Your task to perform on an android device: turn off improve location accuracy Image 0: 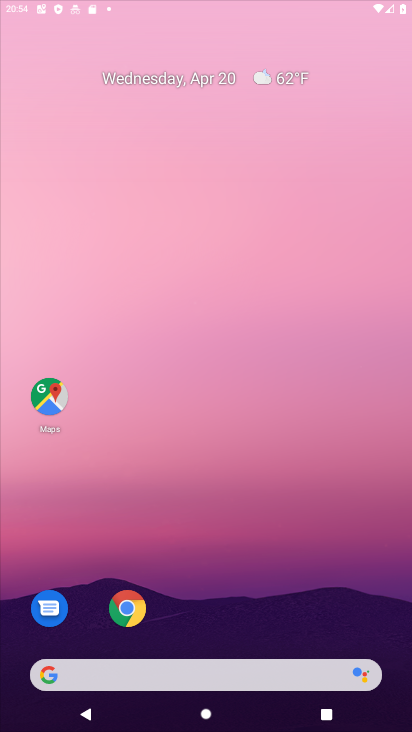
Step 0: click (129, 603)
Your task to perform on an android device: turn off improve location accuracy Image 1: 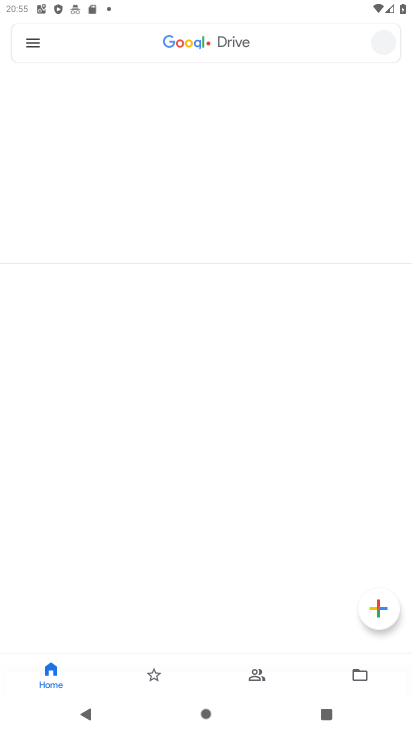
Step 1: press home button
Your task to perform on an android device: turn off improve location accuracy Image 2: 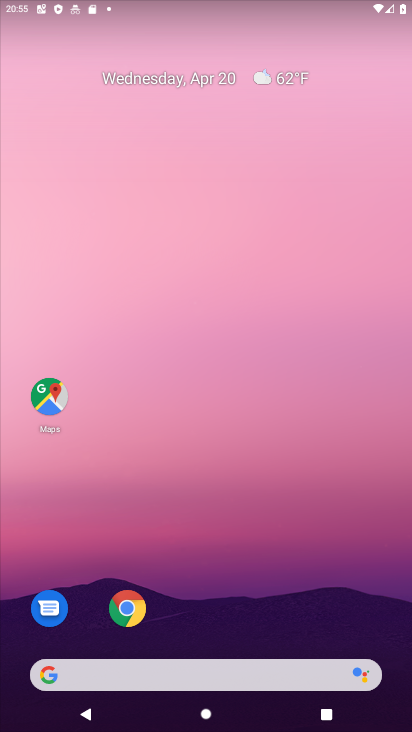
Step 2: drag from (250, 623) to (337, 52)
Your task to perform on an android device: turn off improve location accuracy Image 3: 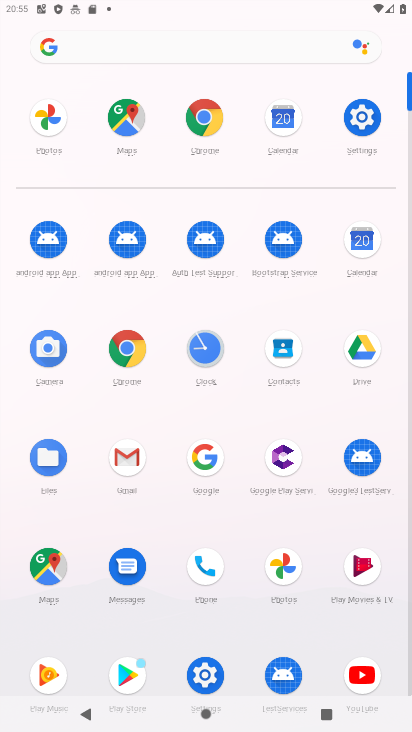
Step 3: click (202, 675)
Your task to perform on an android device: turn off improve location accuracy Image 4: 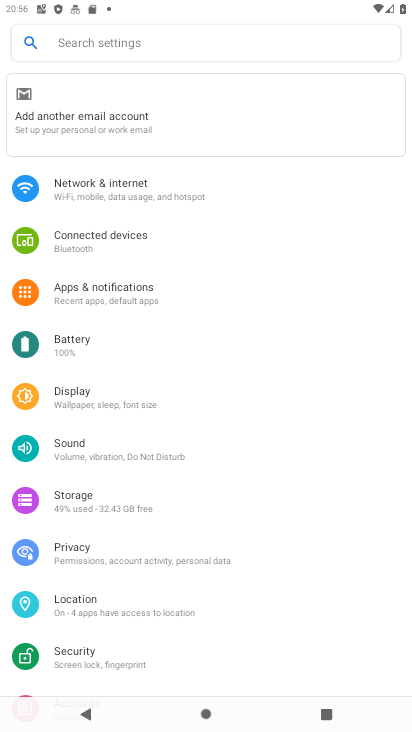
Step 4: click (114, 601)
Your task to perform on an android device: turn off improve location accuracy Image 5: 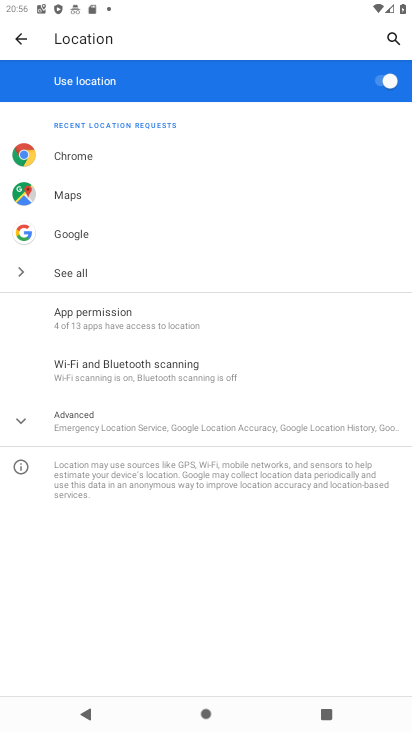
Step 5: click (246, 424)
Your task to perform on an android device: turn off improve location accuracy Image 6: 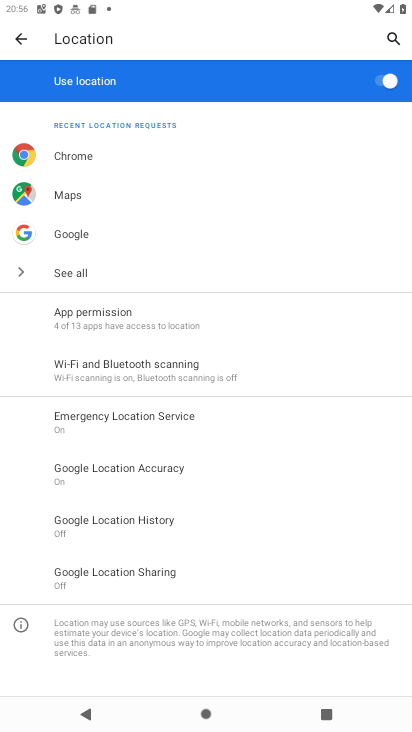
Step 6: click (118, 474)
Your task to perform on an android device: turn off improve location accuracy Image 7: 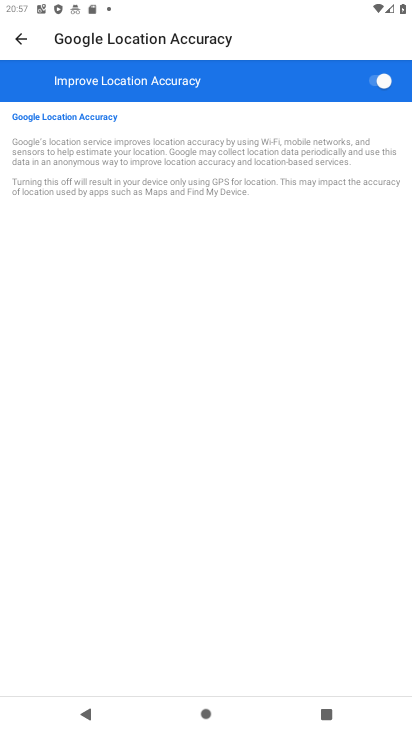
Step 7: click (380, 70)
Your task to perform on an android device: turn off improve location accuracy Image 8: 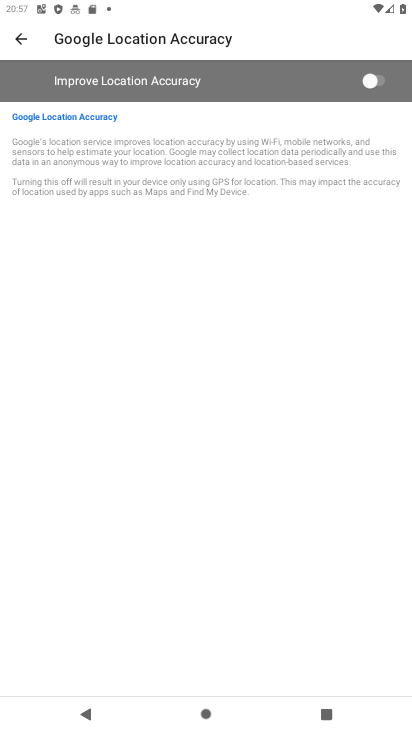
Step 8: task complete